Your task to perform on an android device: open a bookmark in the chrome app Image 0: 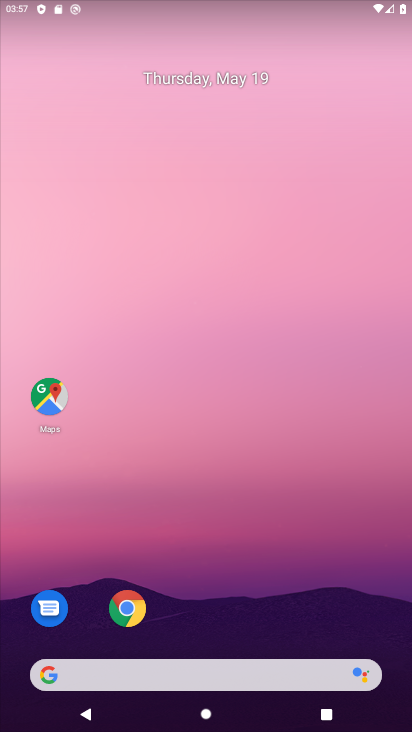
Step 0: click (128, 610)
Your task to perform on an android device: open a bookmark in the chrome app Image 1: 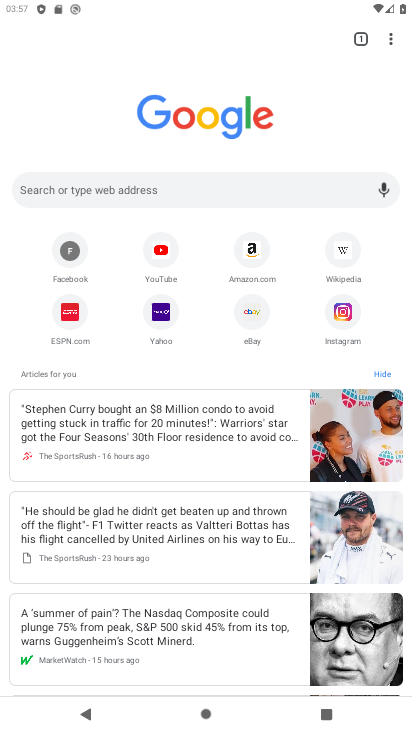
Step 1: click (390, 39)
Your task to perform on an android device: open a bookmark in the chrome app Image 2: 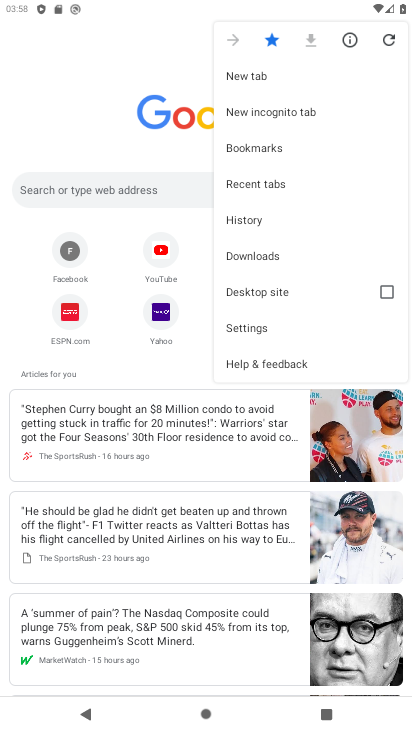
Step 2: click (272, 148)
Your task to perform on an android device: open a bookmark in the chrome app Image 3: 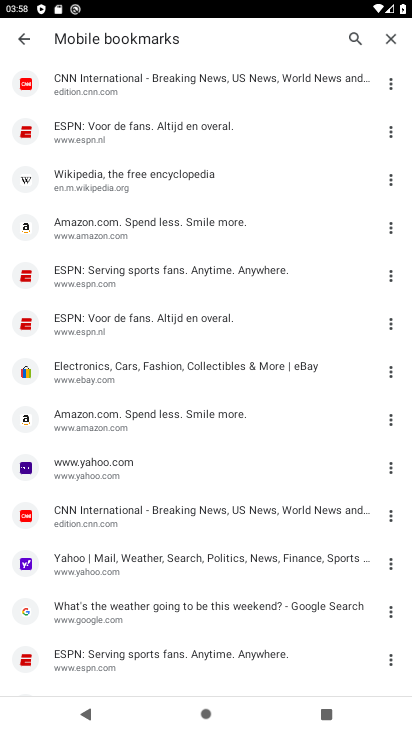
Step 3: task complete